Your task to perform on an android device: turn off javascript in the chrome app Image 0: 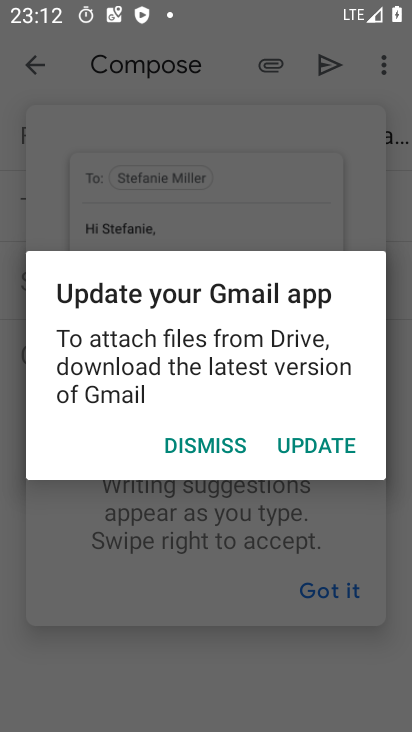
Step 0: press home button
Your task to perform on an android device: turn off javascript in the chrome app Image 1: 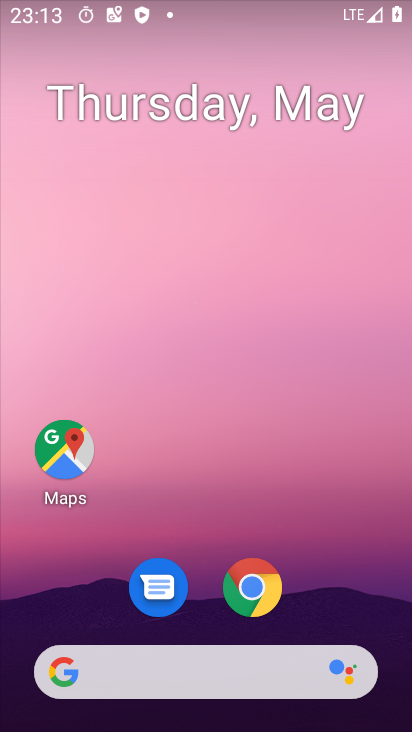
Step 1: click (253, 593)
Your task to perform on an android device: turn off javascript in the chrome app Image 2: 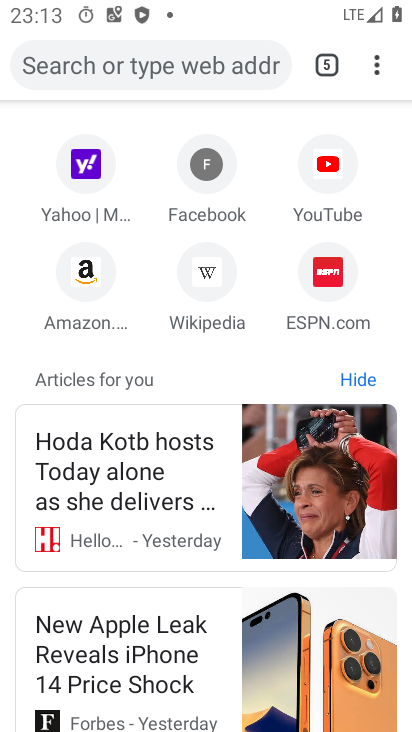
Step 2: click (379, 68)
Your task to perform on an android device: turn off javascript in the chrome app Image 3: 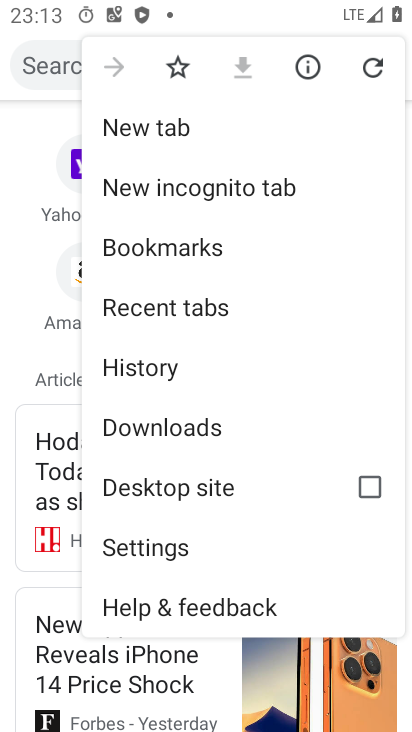
Step 3: drag from (244, 522) to (279, 199)
Your task to perform on an android device: turn off javascript in the chrome app Image 4: 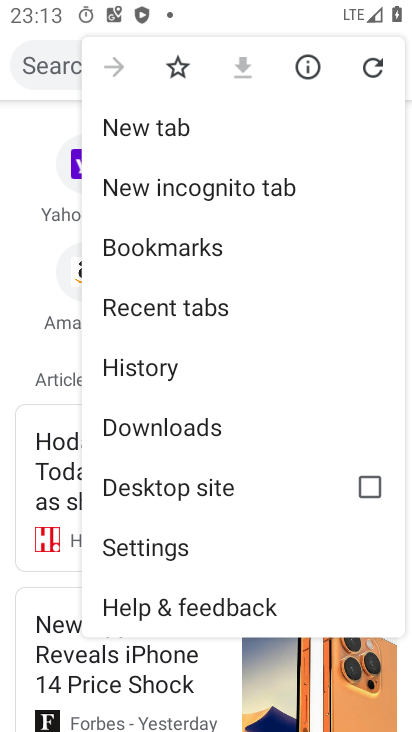
Step 4: click (161, 550)
Your task to perform on an android device: turn off javascript in the chrome app Image 5: 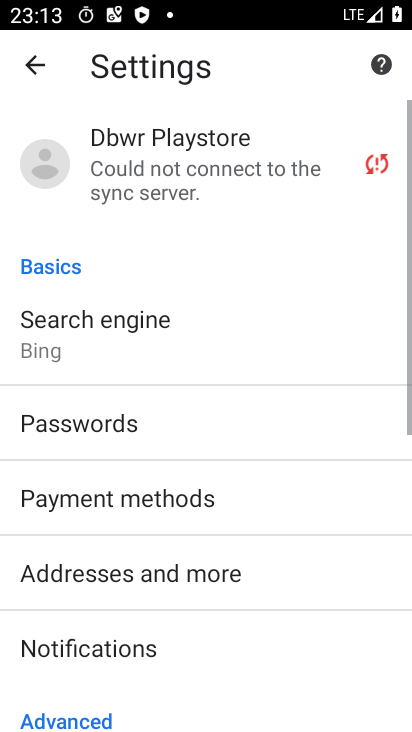
Step 5: drag from (134, 616) to (147, 140)
Your task to perform on an android device: turn off javascript in the chrome app Image 6: 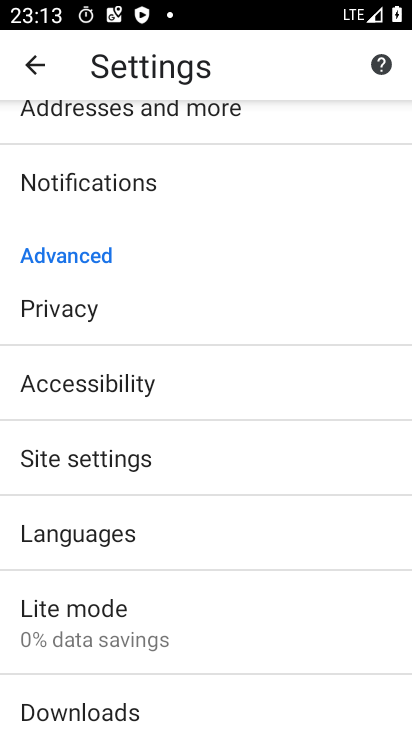
Step 6: click (68, 468)
Your task to perform on an android device: turn off javascript in the chrome app Image 7: 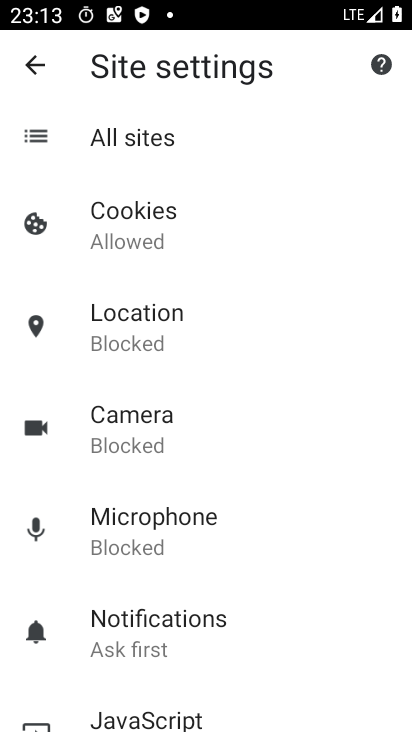
Step 7: drag from (242, 554) to (230, 272)
Your task to perform on an android device: turn off javascript in the chrome app Image 8: 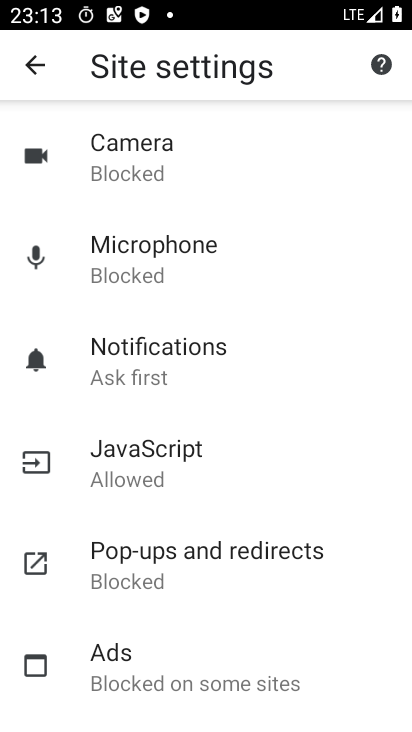
Step 8: click (138, 454)
Your task to perform on an android device: turn off javascript in the chrome app Image 9: 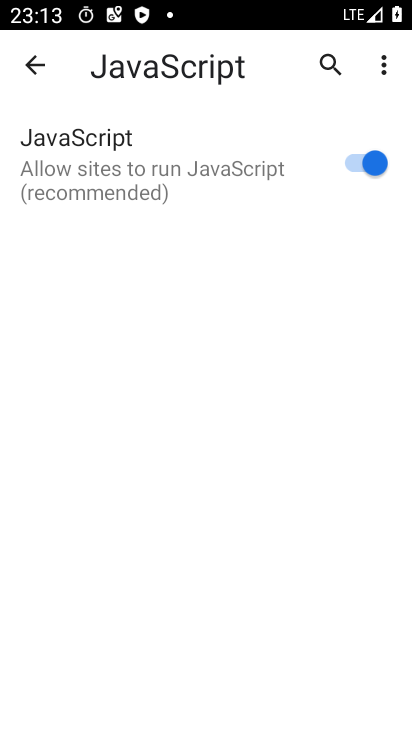
Step 9: click (366, 168)
Your task to perform on an android device: turn off javascript in the chrome app Image 10: 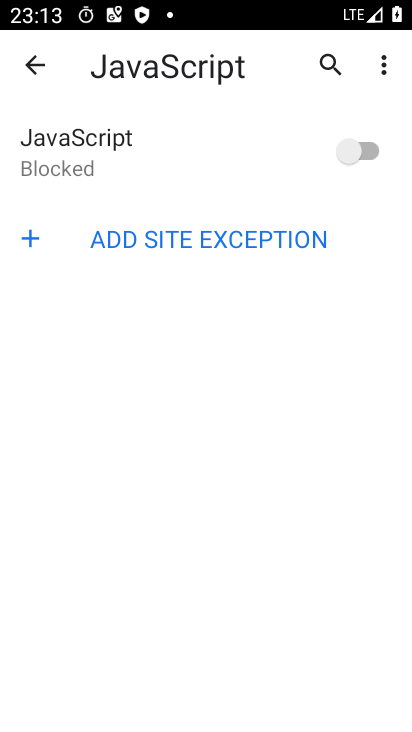
Step 10: task complete